Your task to perform on an android device: See recent photos Image 0: 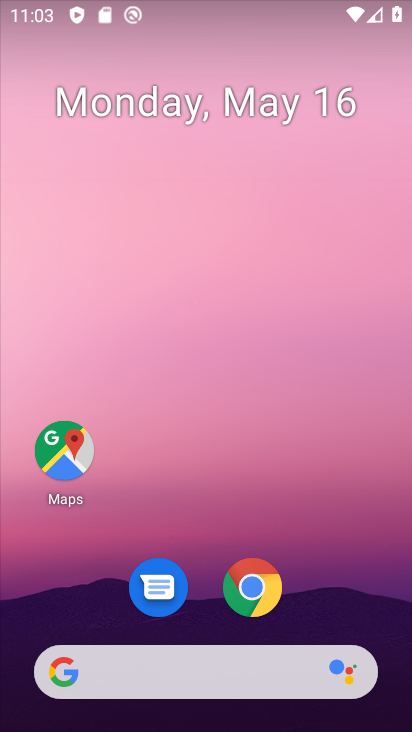
Step 0: drag from (347, 587) to (299, 190)
Your task to perform on an android device: See recent photos Image 1: 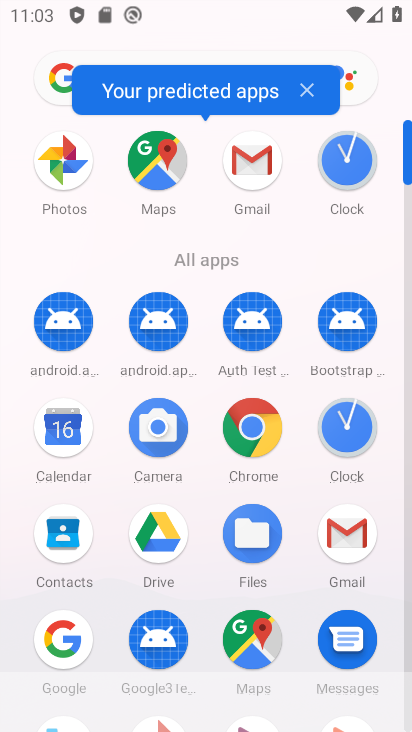
Step 1: click (79, 149)
Your task to perform on an android device: See recent photos Image 2: 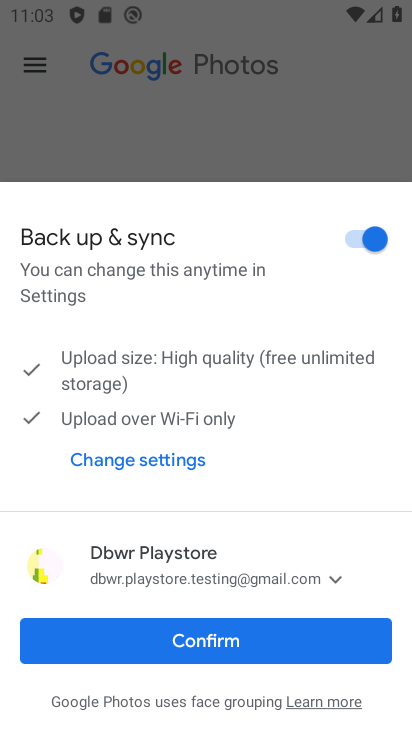
Step 2: click (212, 635)
Your task to perform on an android device: See recent photos Image 3: 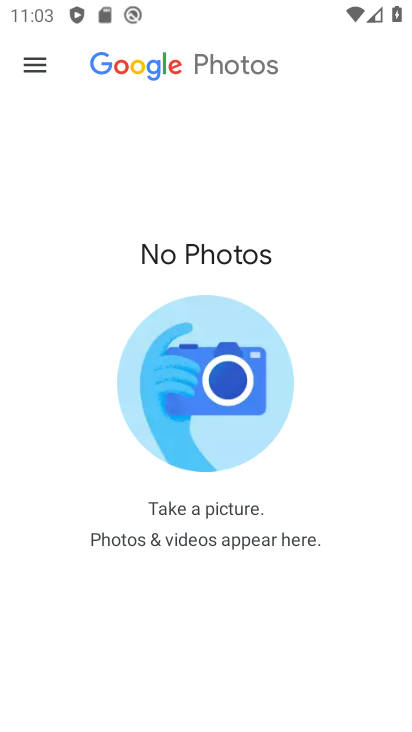
Step 3: click (212, 635)
Your task to perform on an android device: See recent photos Image 4: 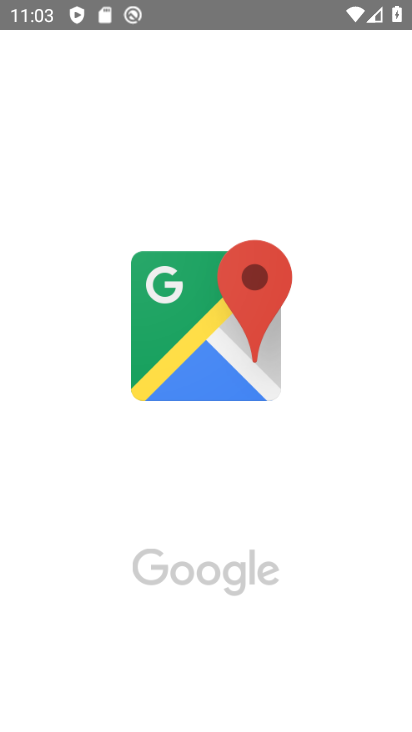
Step 4: click (63, 143)
Your task to perform on an android device: See recent photos Image 5: 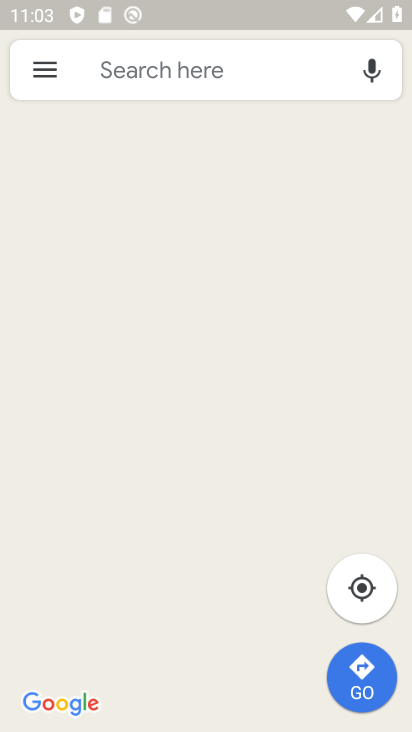
Step 5: press home button
Your task to perform on an android device: See recent photos Image 6: 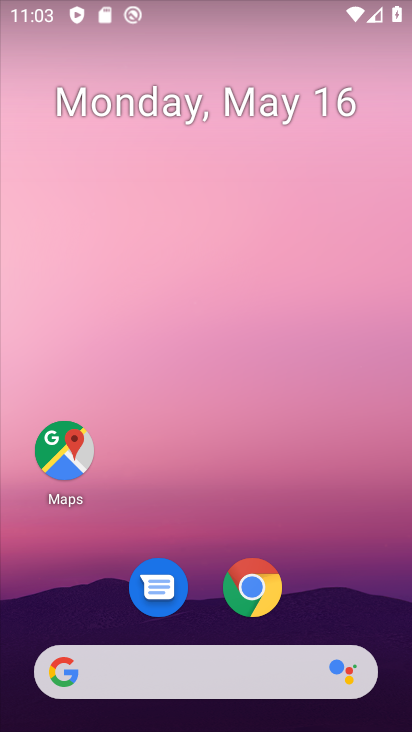
Step 6: click (279, 600)
Your task to perform on an android device: See recent photos Image 7: 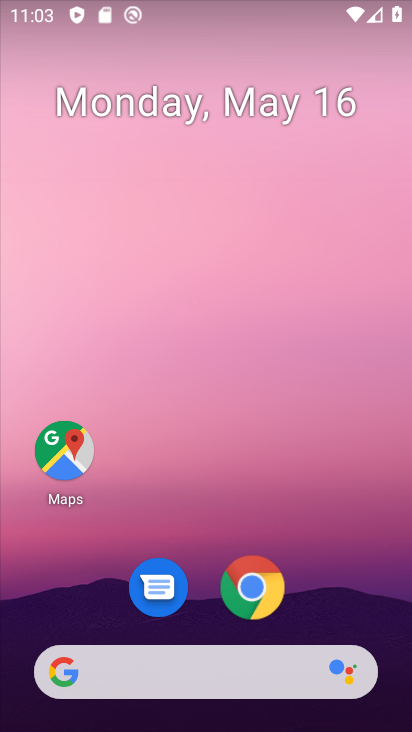
Step 7: drag from (291, 500) to (294, 341)
Your task to perform on an android device: See recent photos Image 8: 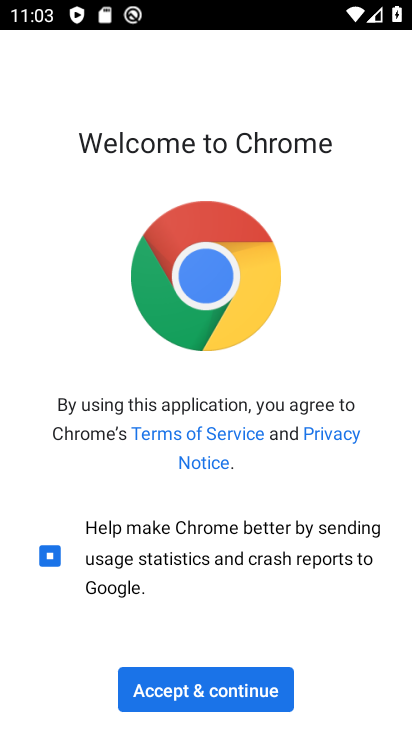
Step 8: press home button
Your task to perform on an android device: See recent photos Image 9: 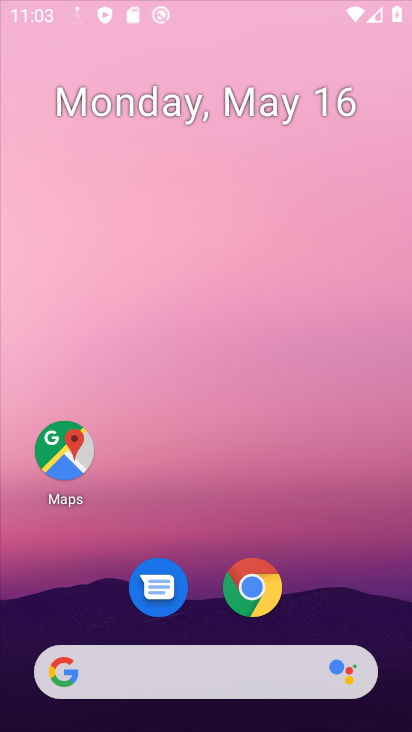
Step 9: drag from (317, 612) to (318, 240)
Your task to perform on an android device: See recent photos Image 10: 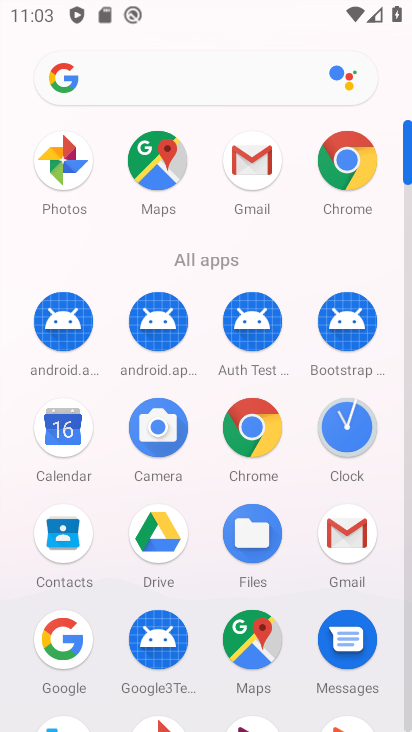
Step 10: click (72, 167)
Your task to perform on an android device: See recent photos Image 11: 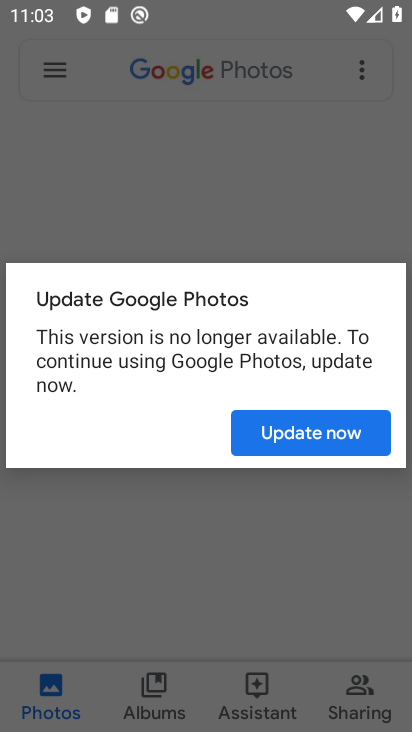
Step 11: click (304, 428)
Your task to perform on an android device: See recent photos Image 12: 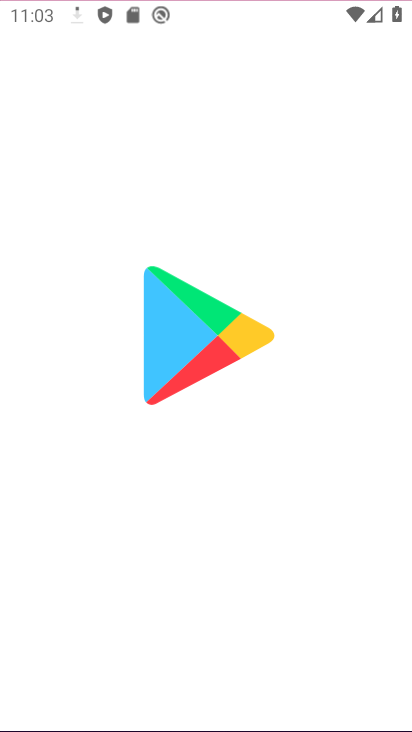
Step 12: press back button
Your task to perform on an android device: See recent photos Image 13: 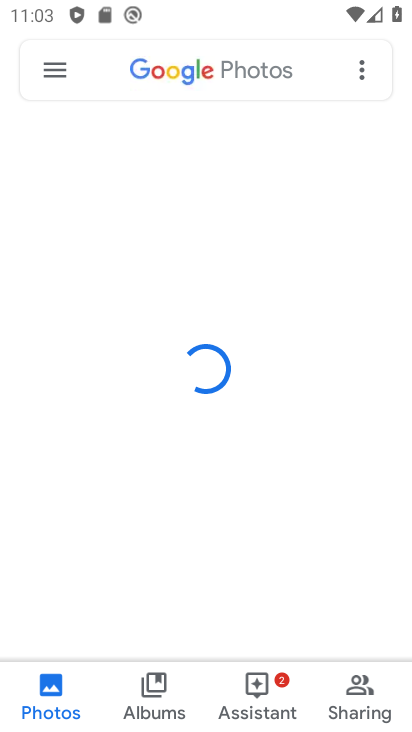
Step 13: click (136, 693)
Your task to perform on an android device: See recent photos Image 14: 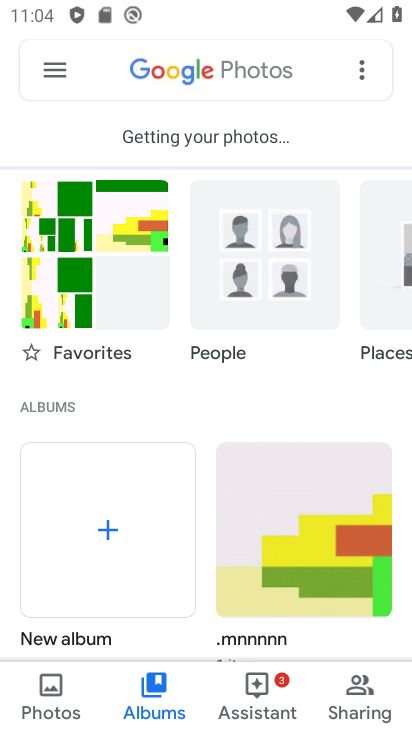
Step 14: click (80, 224)
Your task to perform on an android device: See recent photos Image 15: 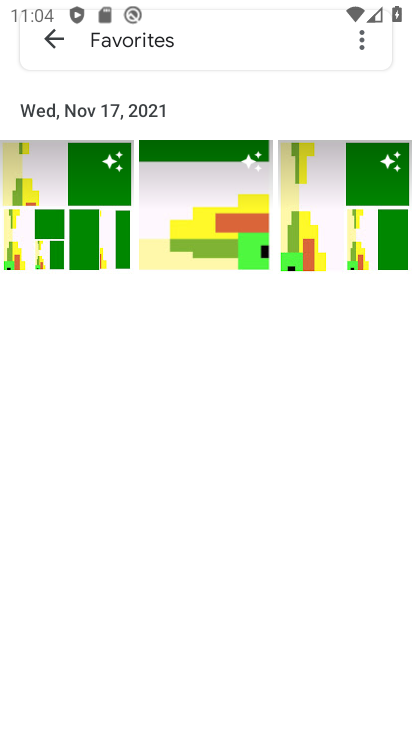
Step 15: task complete